Your task to perform on an android device: change timer sound Image 0: 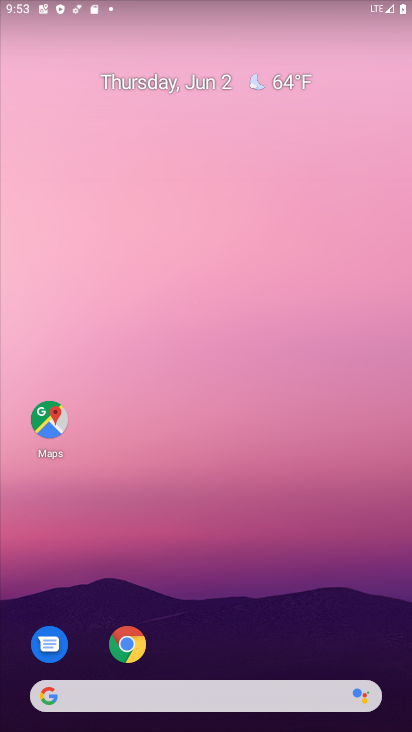
Step 0: drag from (271, 646) to (320, 135)
Your task to perform on an android device: change timer sound Image 1: 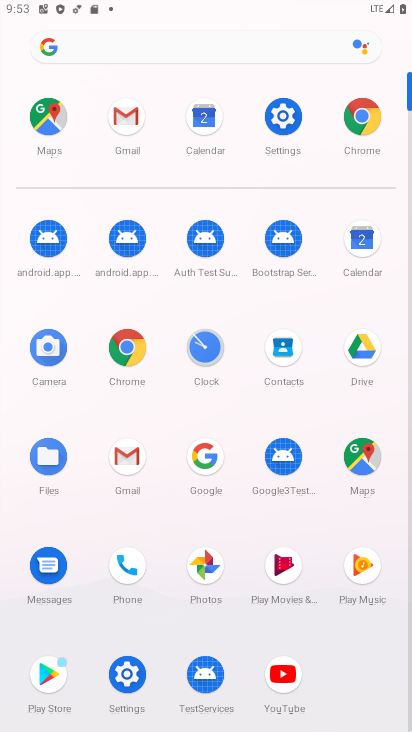
Step 1: click (236, 343)
Your task to perform on an android device: change timer sound Image 2: 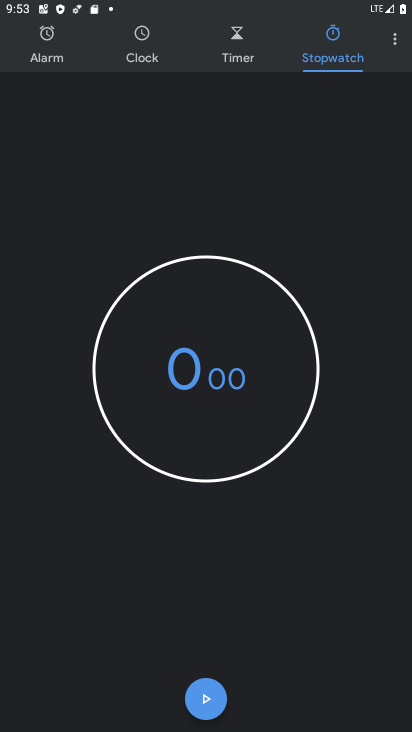
Step 2: click (395, 48)
Your task to perform on an android device: change timer sound Image 3: 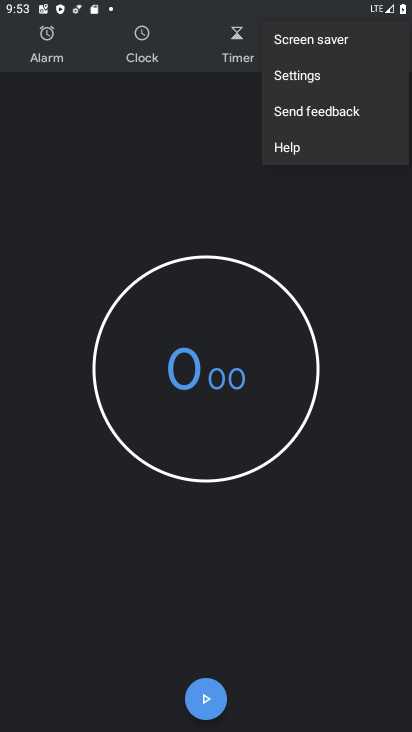
Step 3: click (331, 69)
Your task to perform on an android device: change timer sound Image 4: 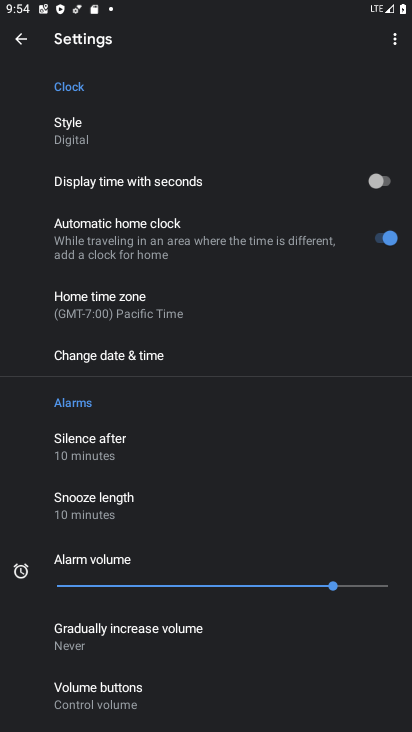
Step 4: drag from (139, 620) to (173, 190)
Your task to perform on an android device: change timer sound Image 5: 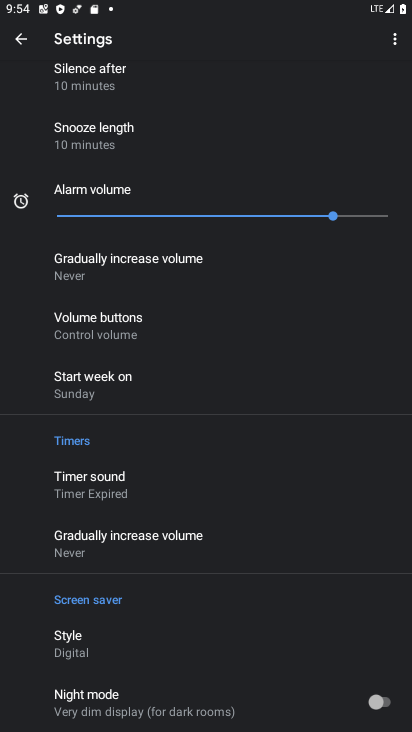
Step 5: click (130, 479)
Your task to perform on an android device: change timer sound Image 6: 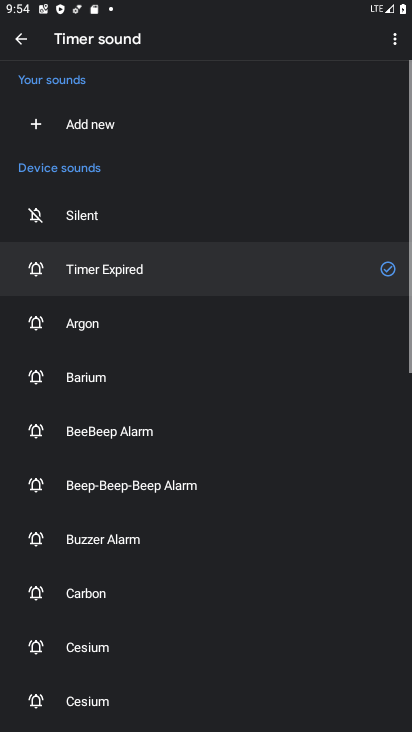
Step 6: click (132, 451)
Your task to perform on an android device: change timer sound Image 7: 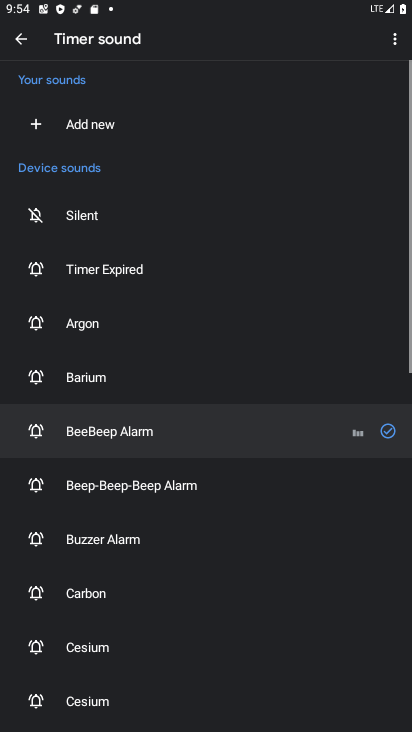
Step 7: task complete